Your task to perform on an android device: Go to eBay Image 0: 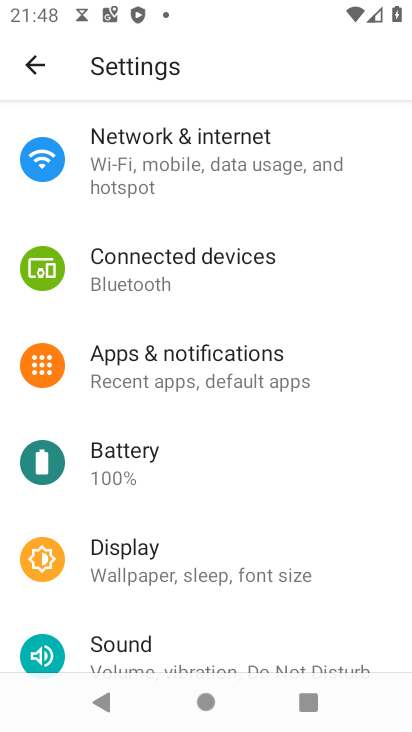
Step 0: press home button
Your task to perform on an android device: Go to eBay Image 1: 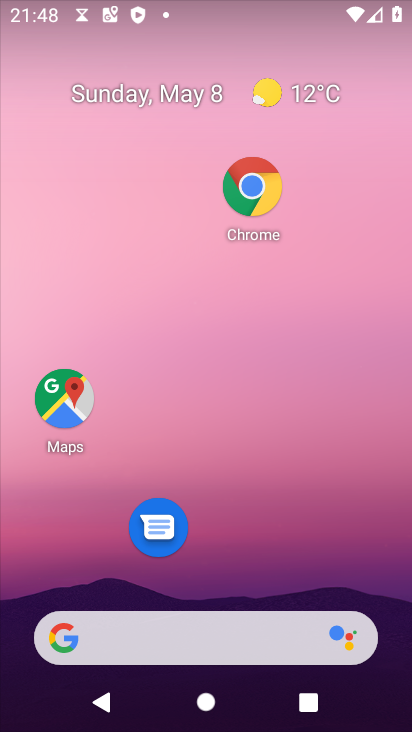
Step 1: drag from (273, 565) to (268, 145)
Your task to perform on an android device: Go to eBay Image 2: 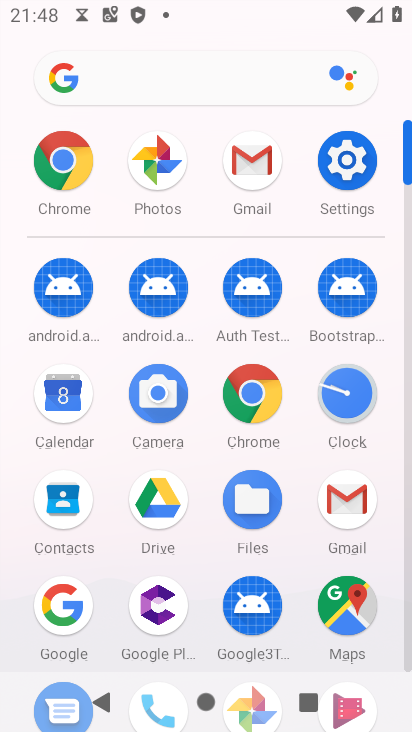
Step 2: click (48, 150)
Your task to perform on an android device: Go to eBay Image 3: 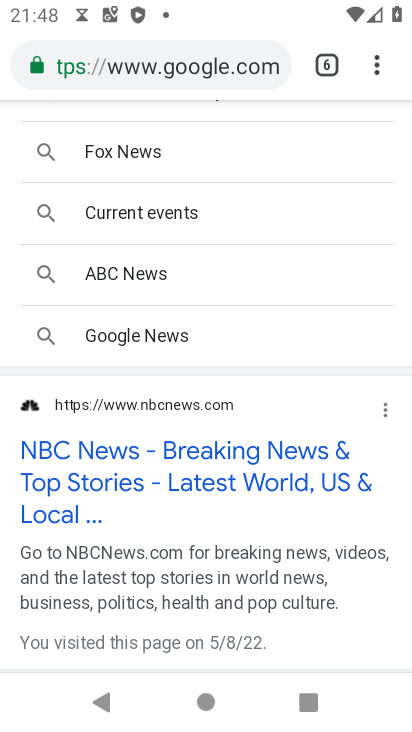
Step 3: click (368, 63)
Your task to perform on an android device: Go to eBay Image 4: 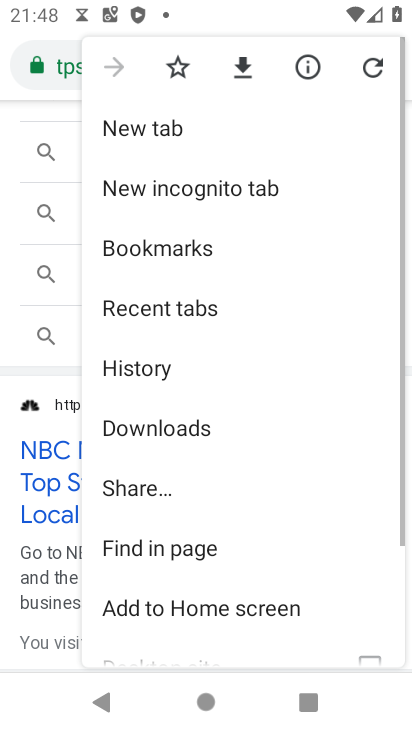
Step 4: click (158, 128)
Your task to perform on an android device: Go to eBay Image 5: 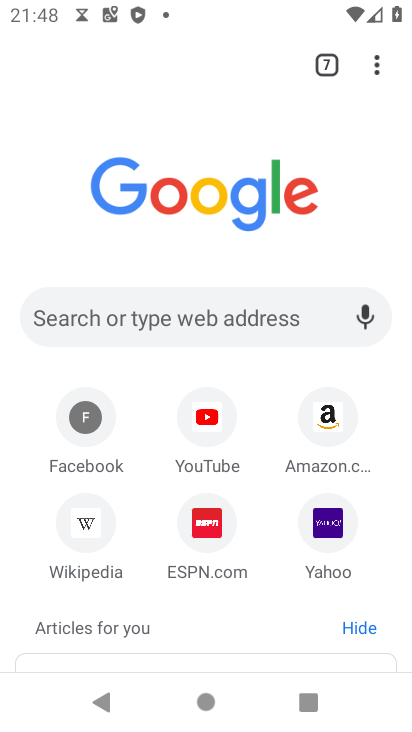
Step 5: click (148, 314)
Your task to perform on an android device: Go to eBay Image 6: 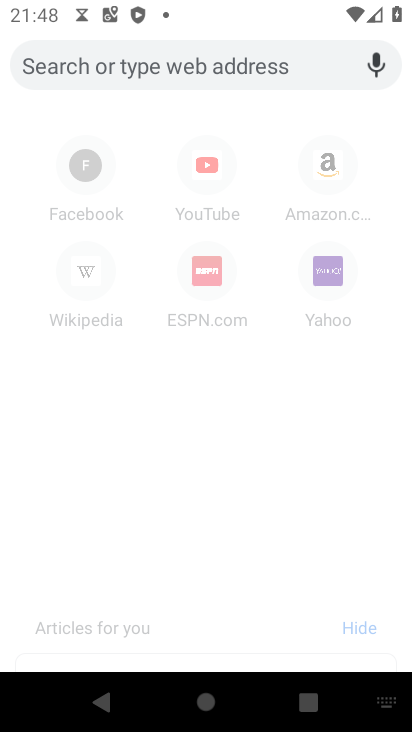
Step 6: type "eBay"
Your task to perform on an android device: Go to eBay Image 7: 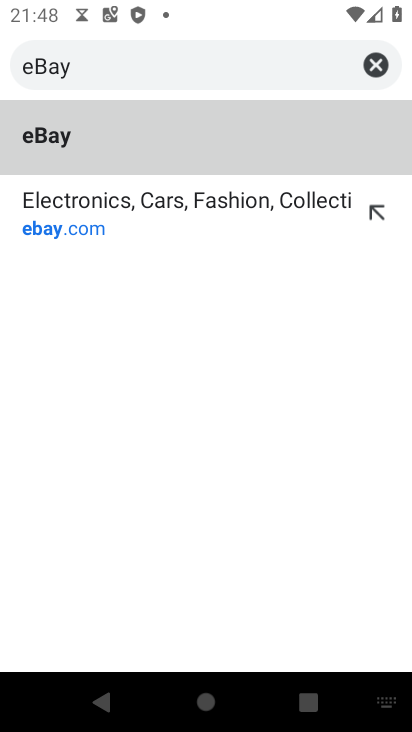
Step 7: click (203, 124)
Your task to perform on an android device: Go to eBay Image 8: 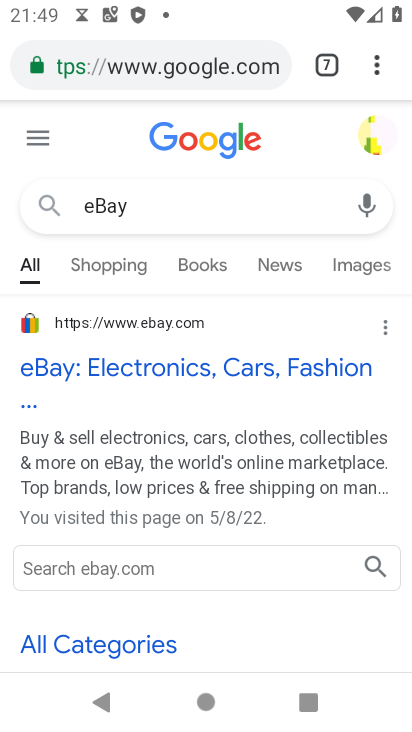
Step 8: task complete